Your task to perform on an android device: turn pop-ups on in chrome Image 0: 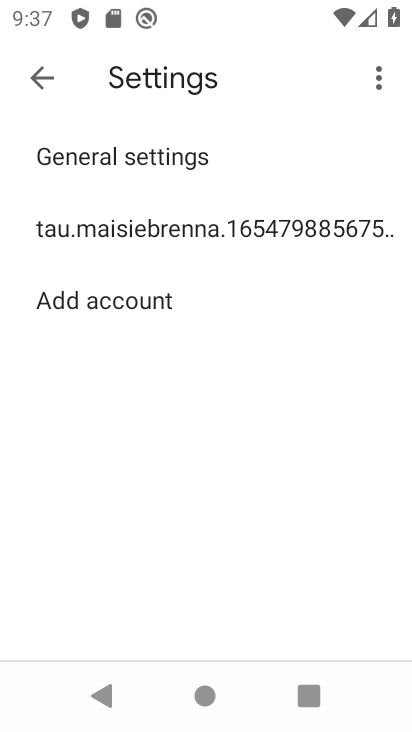
Step 0: press back button
Your task to perform on an android device: turn pop-ups on in chrome Image 1: 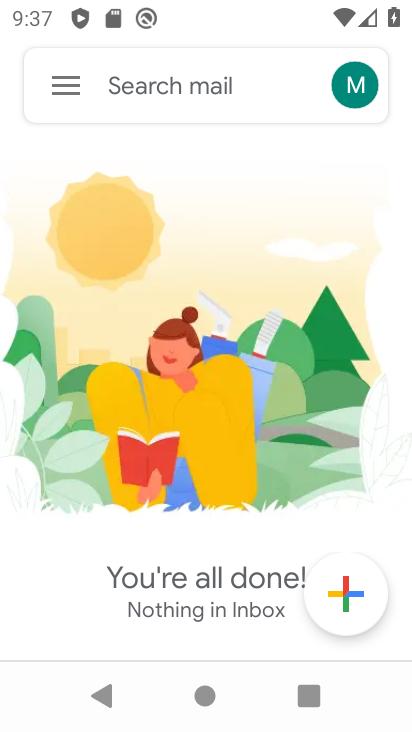
Step 1: press back button
Your task to perform on an android device: turn pop-ups on in chrome Image 2: 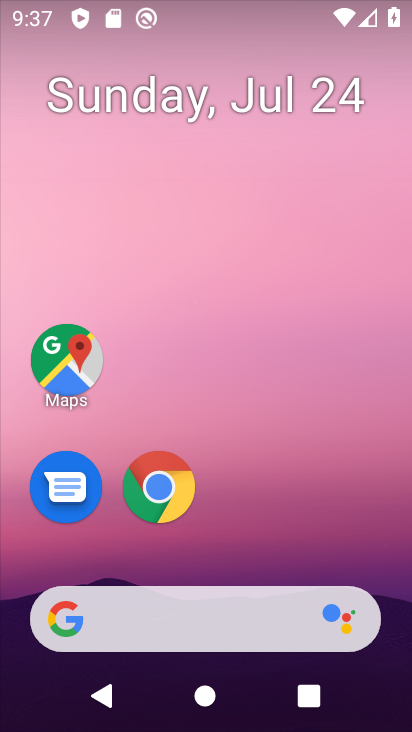
Step 2: click (154, 492)
Your task to perform on an android device: turn pop-ups on in chrome Image 3: 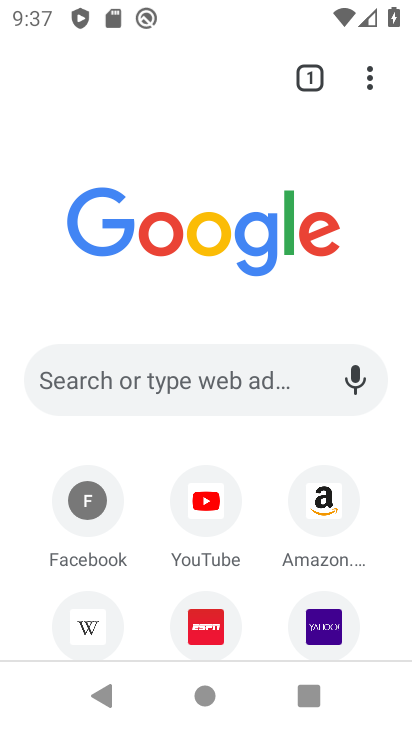
Step 3: drag from (366, 71) to (138, 549)
Your task to perform on an android device: turn pop-ups on in chrome Image 4: 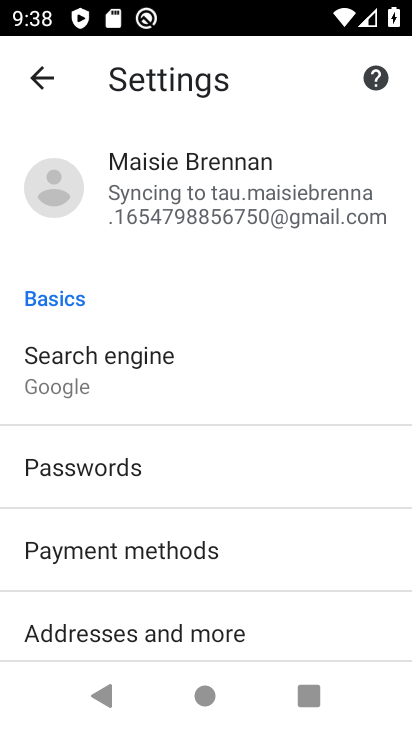
Step 4: drag from (118, 584) to (238, 96)
Your task to perform on an android device: turn pop-ups on in chrome Image 5: 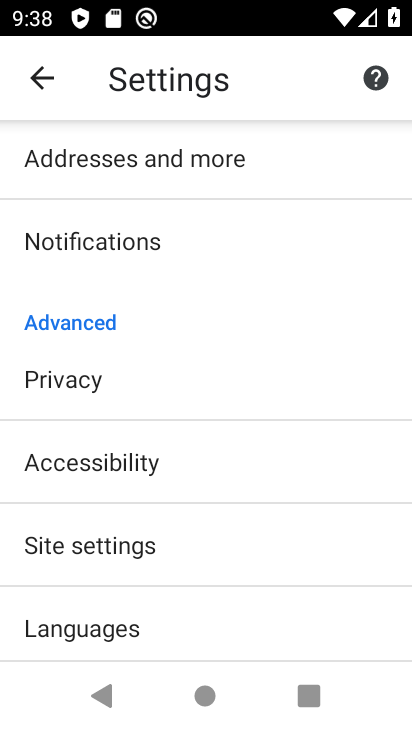
Step 5: click (116, 554)
Your task to perform on an android device: turn pop-ups on in chrome Image 6: 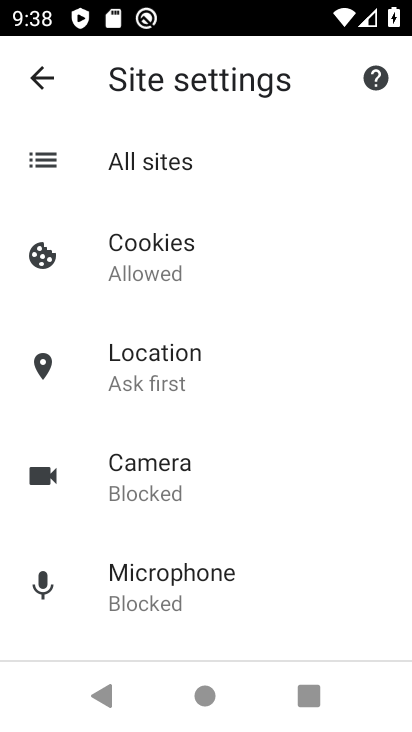
Step 6: drag from (186, 591) to (283, 61)
Your task to perform on an android device: turn pop-ups on in chrome Image 7: 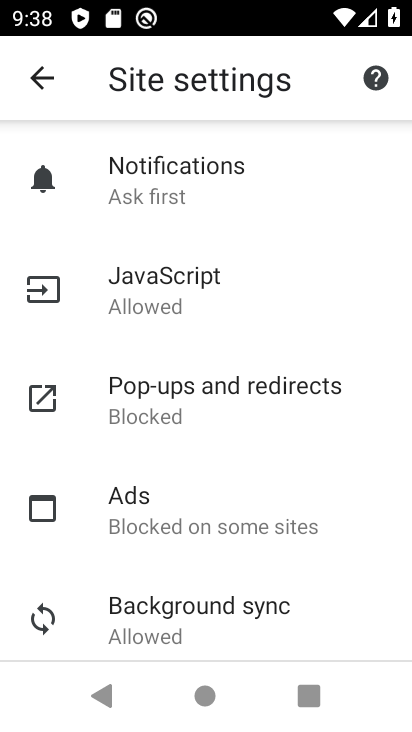
Step 7: click (185, 394)
Your task to perform on an android device: turn pop-ups on in chrome Image 8: 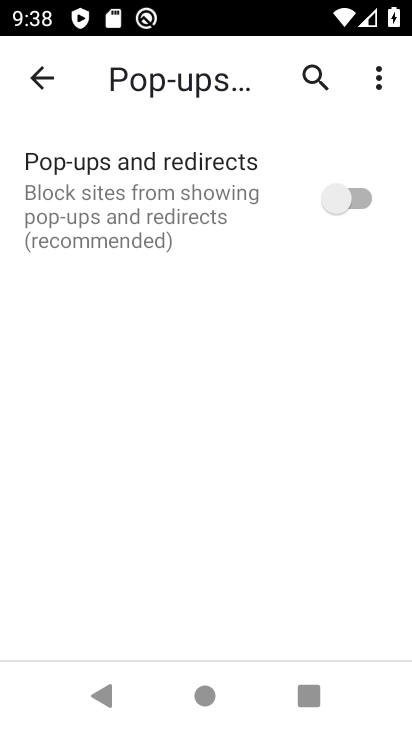
Step 8: click (335, 192)
Your task to perform on an android device: turn pop-ups on in chrome Image 9: 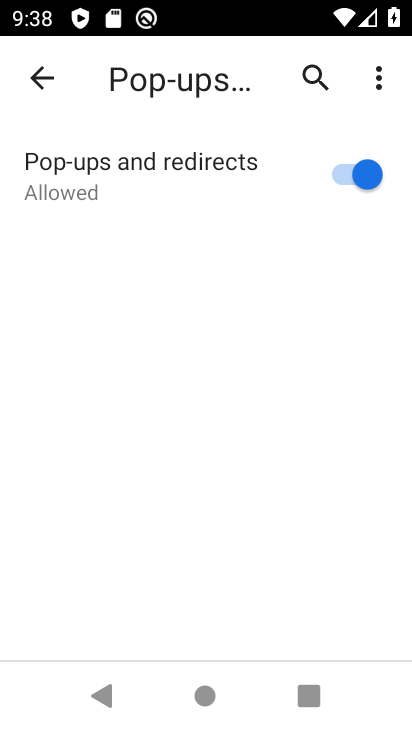
Step 9: task complete